Your task to perform on an android device: Go to Google Image 0: 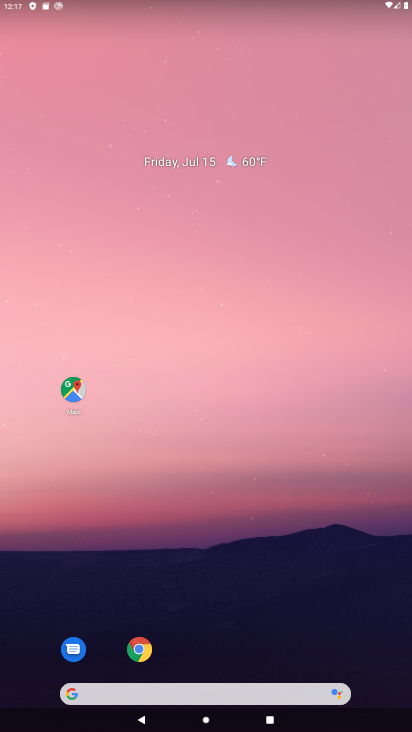
Step 0: drag from (187, 564) to (182, 296)
Your task to perform on an android device: Go to Google Image 1: 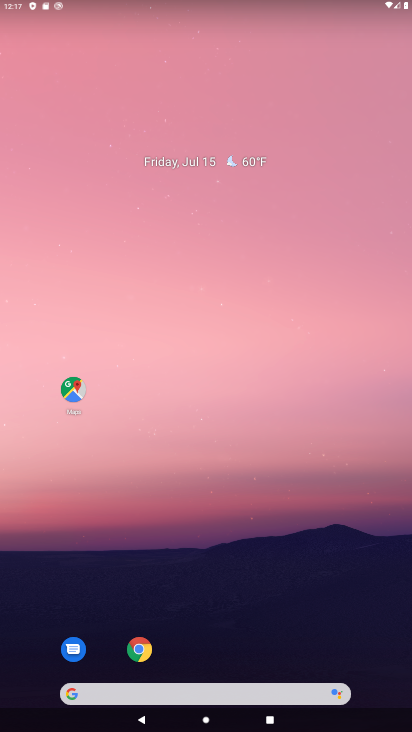
Step 1: drag from (187, 549) to (229, 93)
Your task to perform on an android device: Go to Google Image 2: 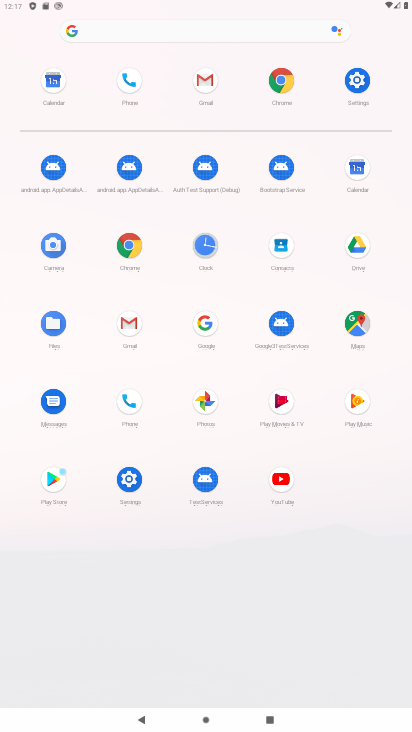
Step 2: click (209, 328)
Your task to perform on an android device: Go to Google Image 3: 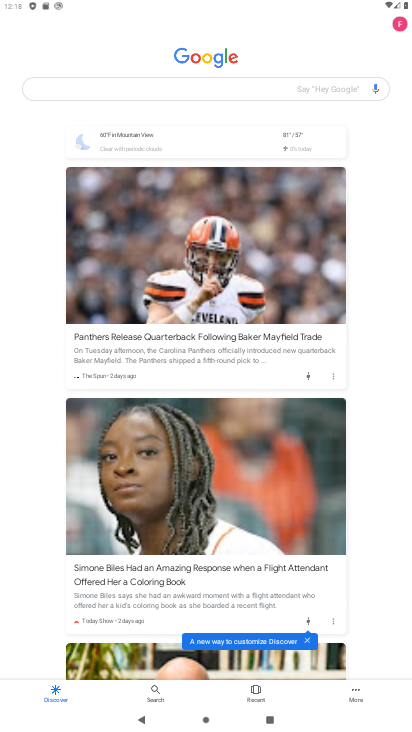
Step 3: task complete